Your task to perform on an android device: stop showing notifications on the lock screen Image 0: 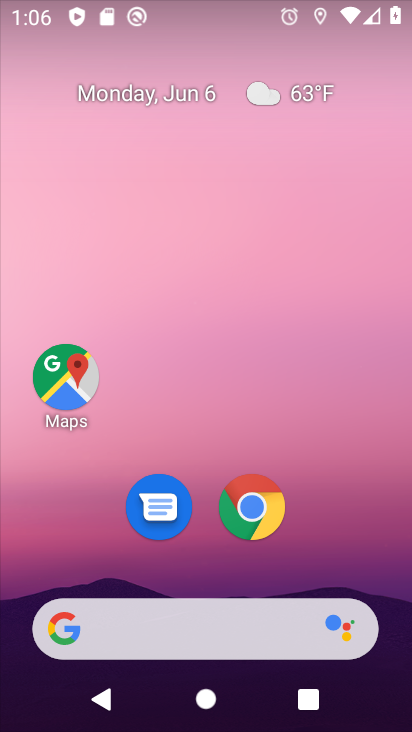
Step 0: drag from (328, 478) to (382, 18)
Your task to perform on an android device: stop showing notifications on the lock screen Image 1: 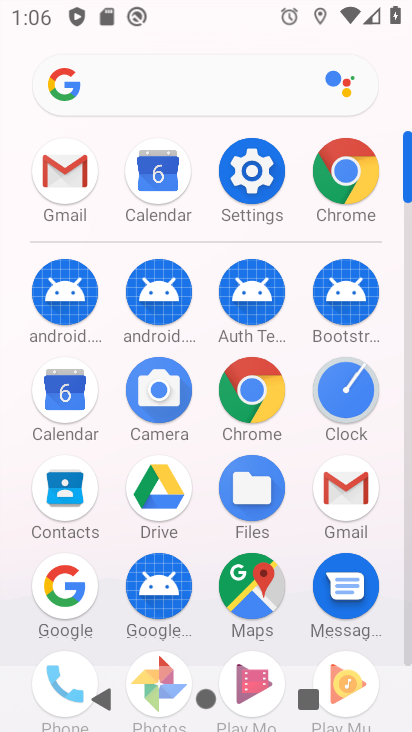
Step 1: click (262, 158)
Your task to perform on an android device: stop showing notifications on the lock screen Image 2: 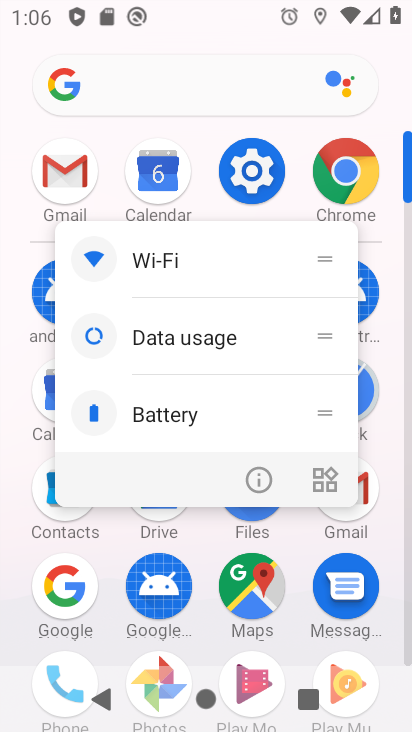
Step 2: click (262, 157)
Your task to perform on an android device: stop showing notifications on the lock screen Image 3: 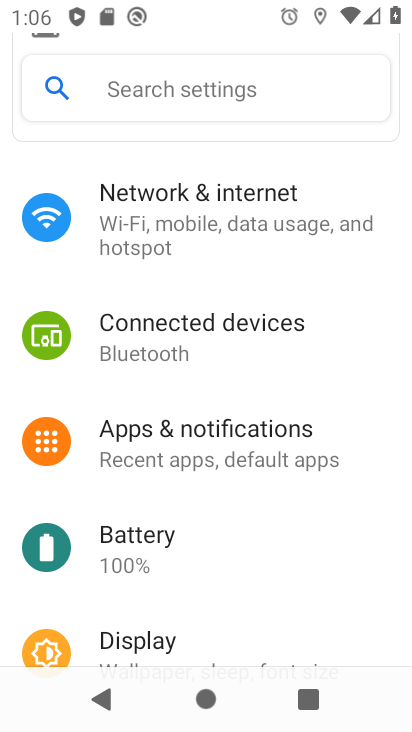
Step 3: click (233, 415)
Your task to perform on an android device: stop showing notifications on the lock screen Image 4: 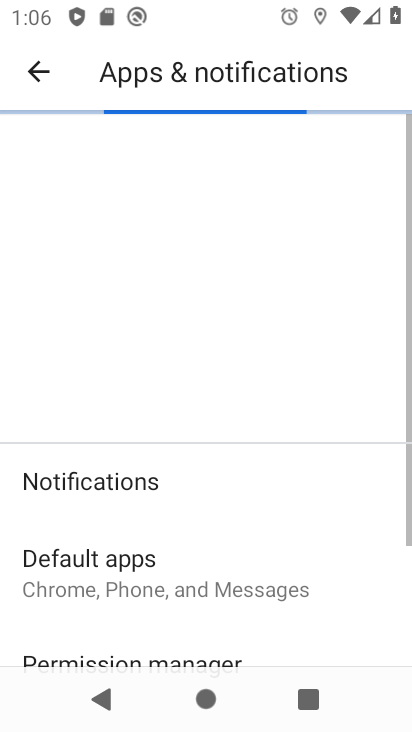
Step 4: click (238, 434)
Your task to perform on an android device: stop showing notifications on the lock screen Image 5: 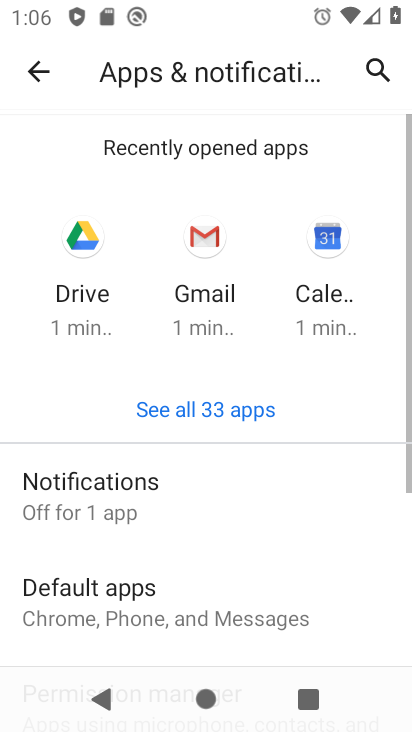
Step 5: click (227, 470)
Your task to perform on an android device: stop showing notifications on the lock screen Image 6: 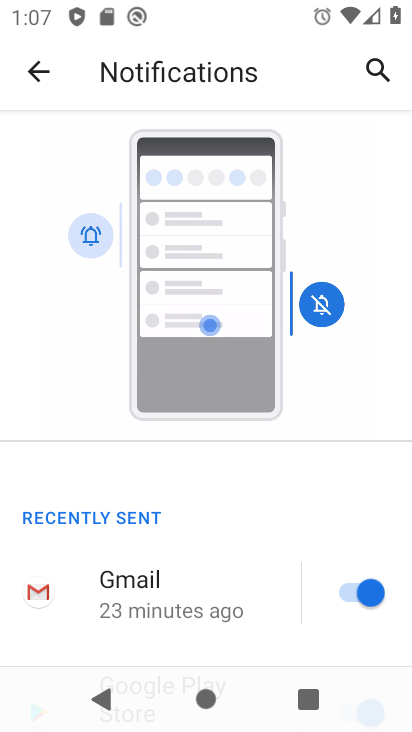
Step 6: drag from (221, 534) to (259, 120)
Your task to perform on an android device: stop showing notifications on the lock screen Image 7: 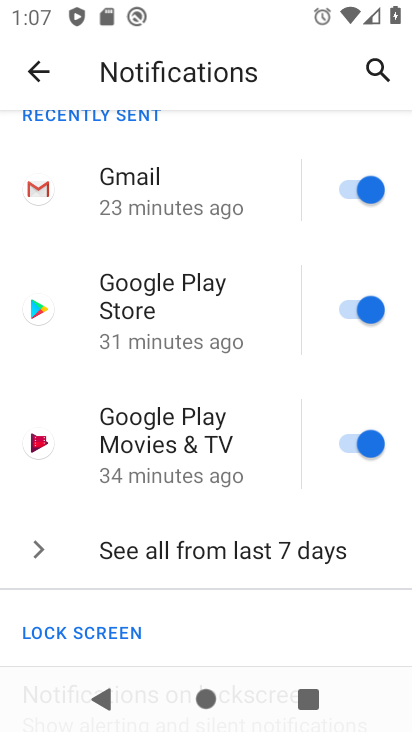
Step 7: drag from (183, 615) to (204, 255)
Your task to perform on an android device: stop showing notifications on the lock screen Image 8: 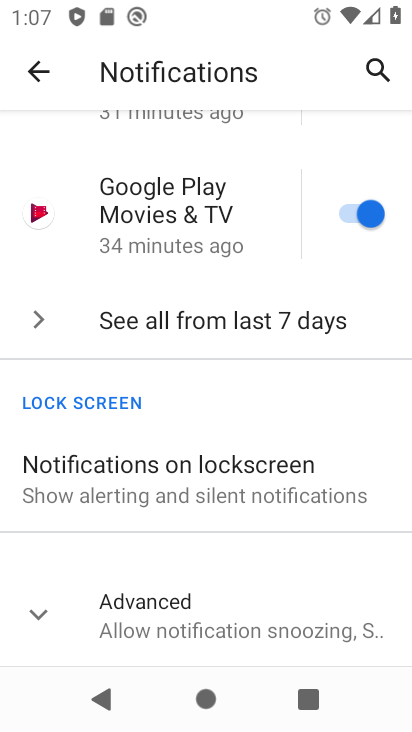
Step 8: click (174, 472)
Your task to perform on an android device: stop showing notifications on the lock screen Image 9: 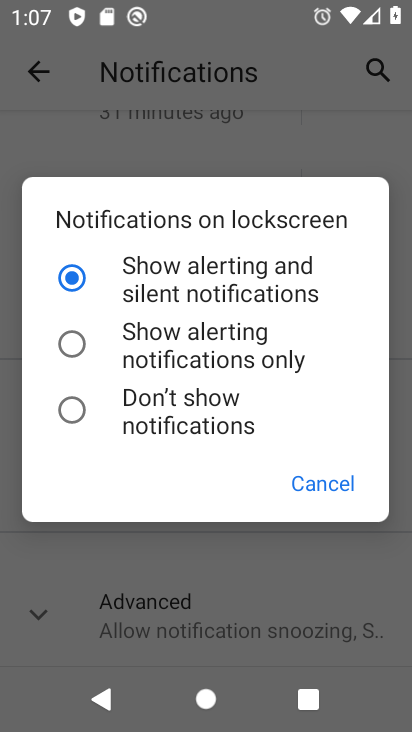
Step 9: click (74, 403)
Your task to perform on an android device: stop showing notifications on the lock screen Image 10: 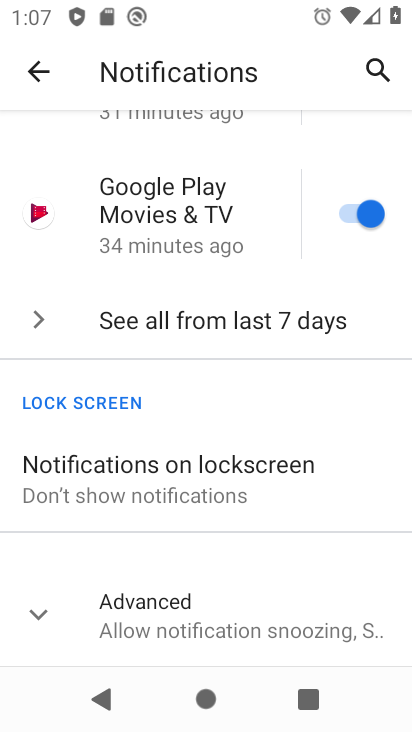
Step 10: task complete